Your task to perform on an android device: open app "ZOOM Cloud Meetings" (install if not already installed) Image 0: 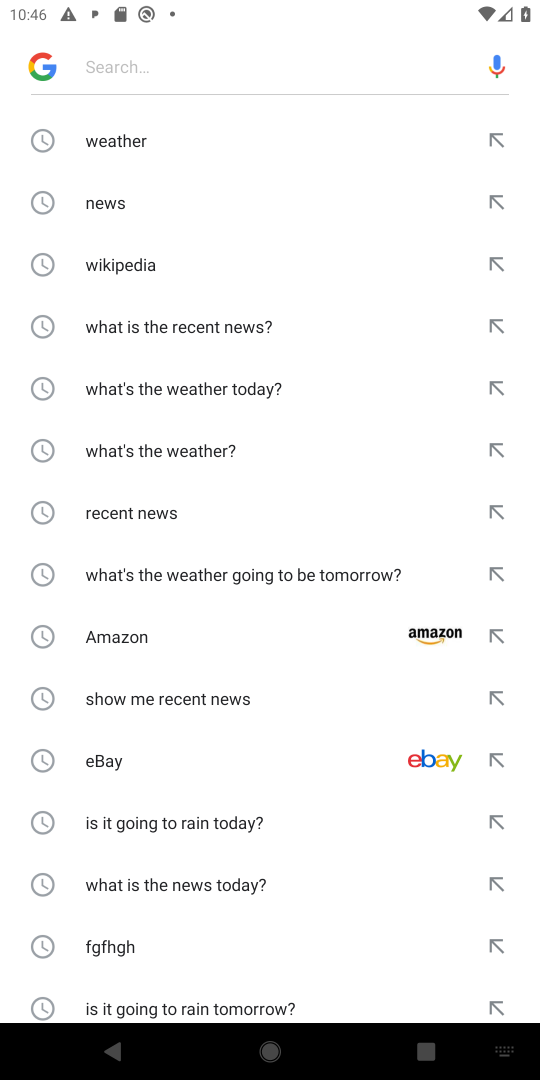
Step 0: click (184, 56)
Your task to perform on an android device: open app "ZOOM Cloud Meetings" (install if not already installed) Image 1: 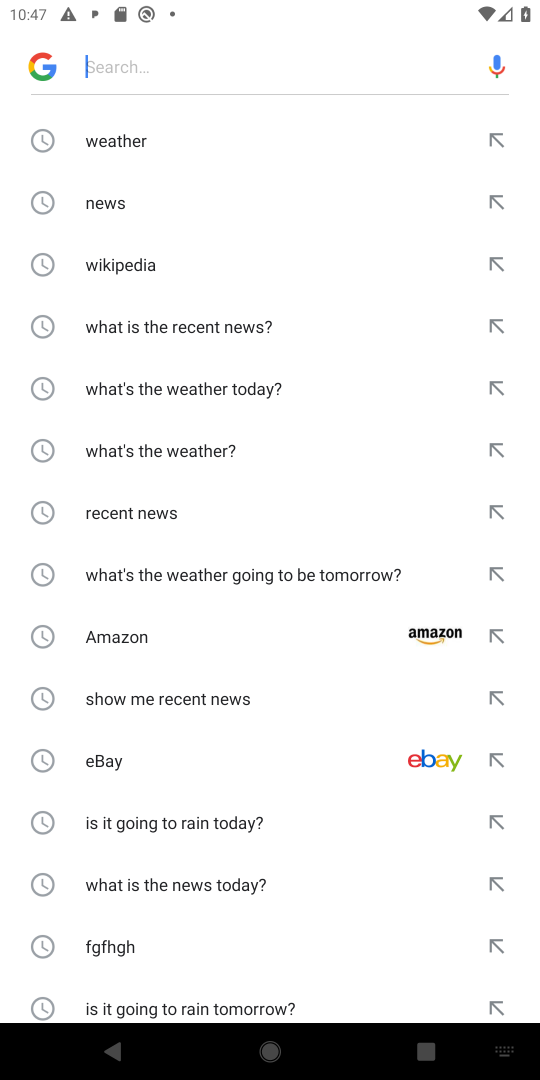
Step 1: press home button
Your task to perform on an android device: open app "ZOOM Cloud Meetings" (install if not already installed) Image 2: 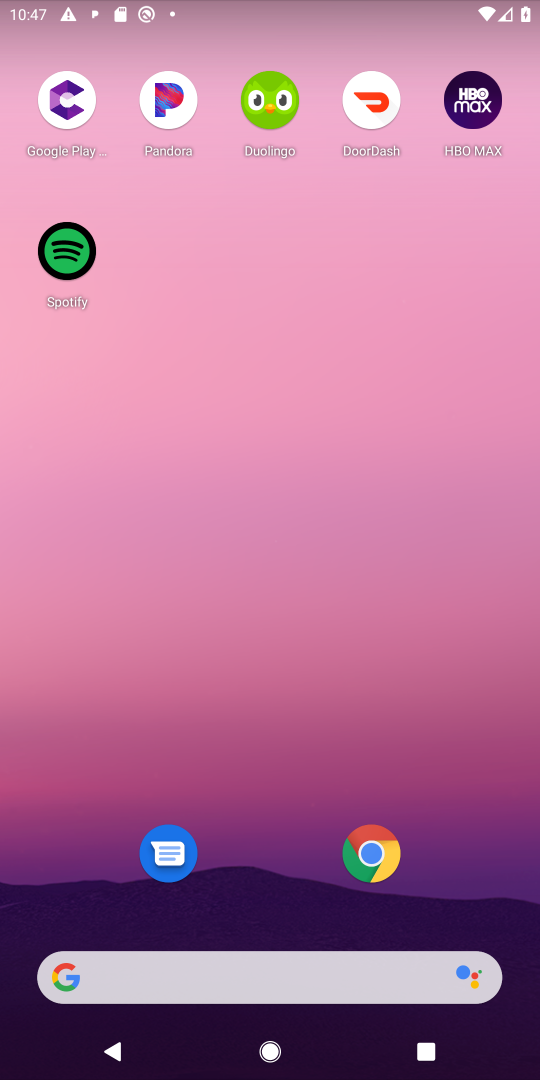
Step 2: drag from (339, 638) to (447, 77)
Your task to perform on an android device: open app "ZOOM Cloud Meetings" (install if not already installed) Image 3: 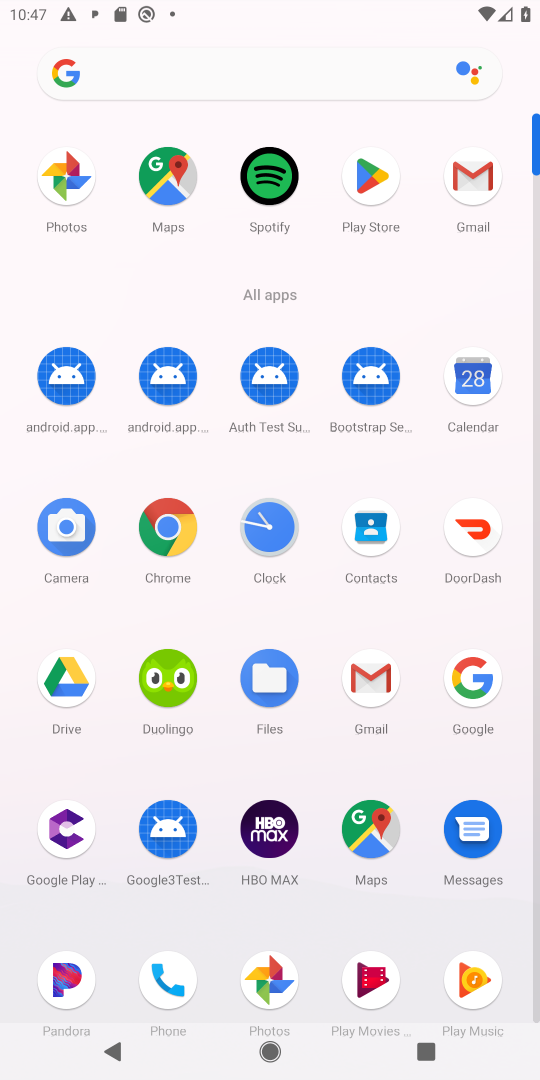
Step 3: click (363, 176)
Your task to perform on an android device: open app "ZOOM Cloud Meetings" (install if not already installed) Image 4: 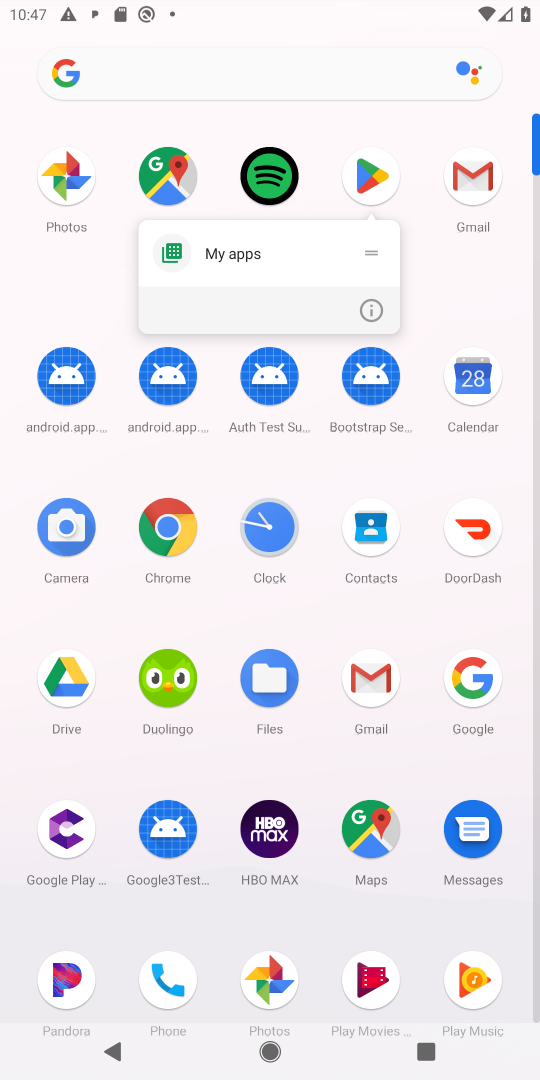
Step 4: click (363, 176)
Your task to perform on an android device: open app "ZOOM Cloud Meetings" (install if not already installed) Image 5: 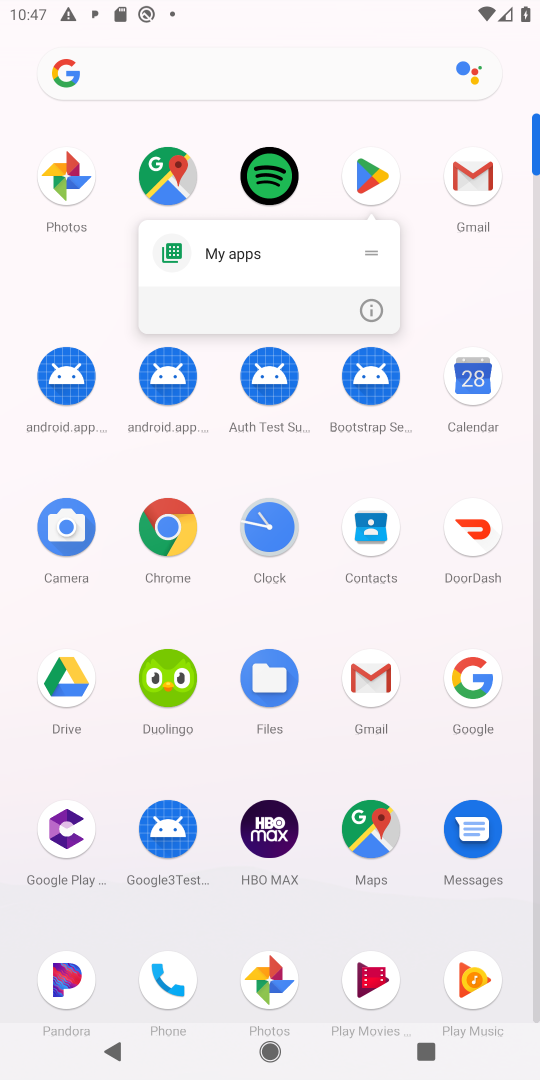
Step 5: click (363, 176)
Your task to perform on an android device: open app "ZOOM Cloud Meetings" (install if not already installed) Image 6: 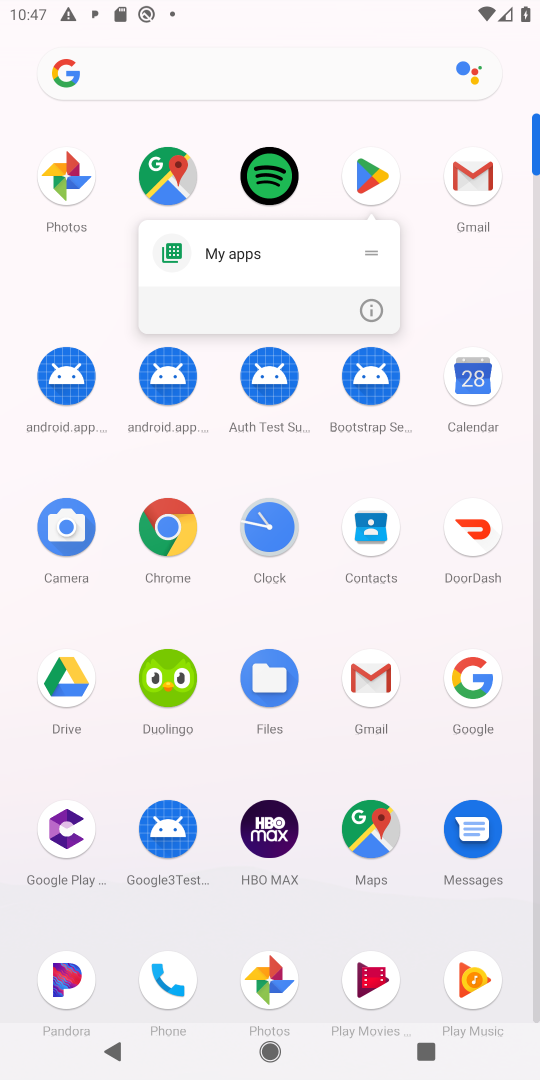
Step 6: click (363, 176)
Your task to perform on an android device: open app "ZOOM Cloud Meetings" (install if not already installed) Image 7: 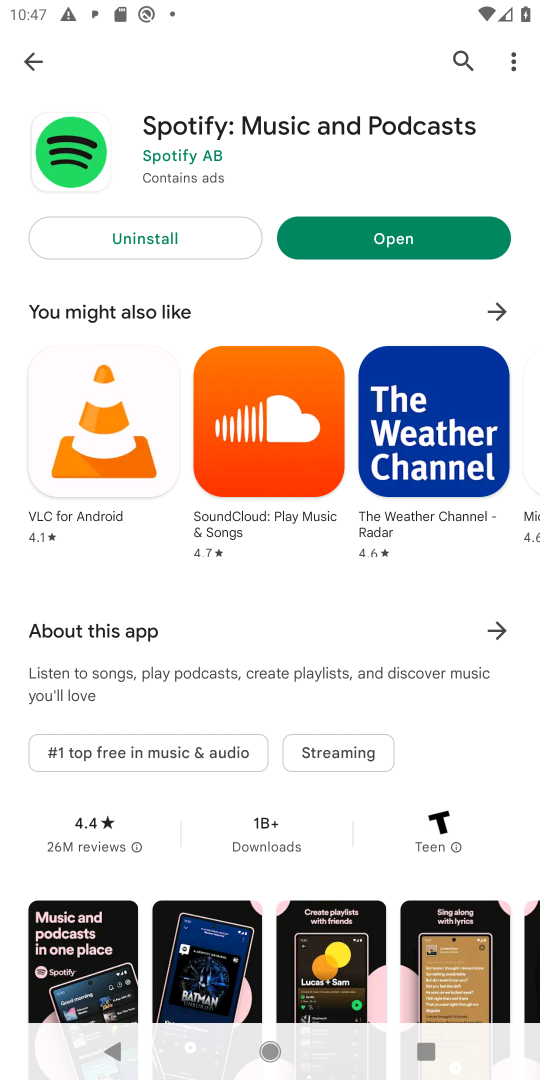
Step 7: click (471, 48)
Your task to perform on an android device: open app "ZOOM Cloud Meetings" (install if not already installed) Image 8: 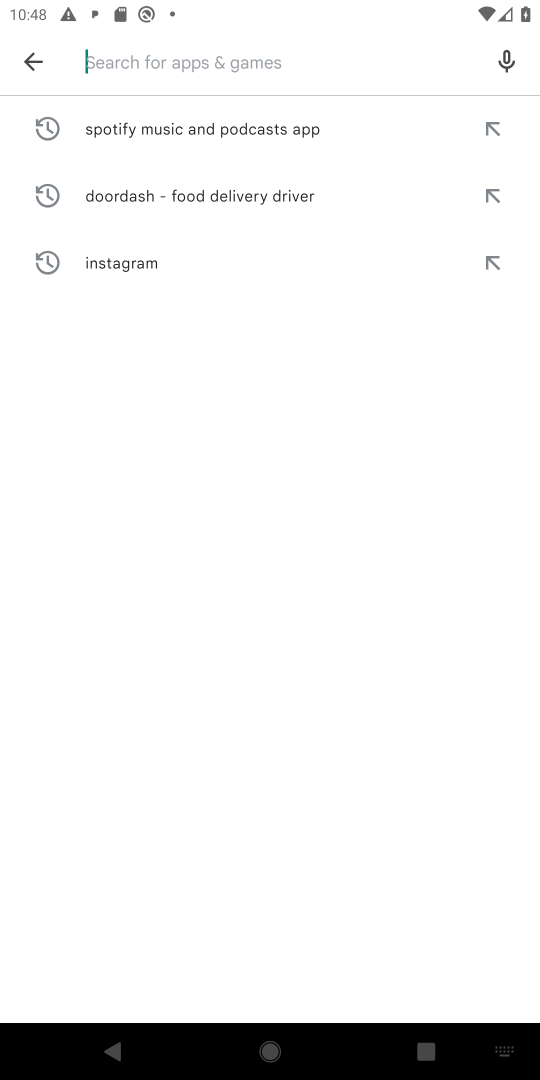
Step 8: type "ZOOM Cloud Meetings"
Your task to perform on an android device: open app "ZOOM Cloud Meetings" (install if not already installed) Image 9: 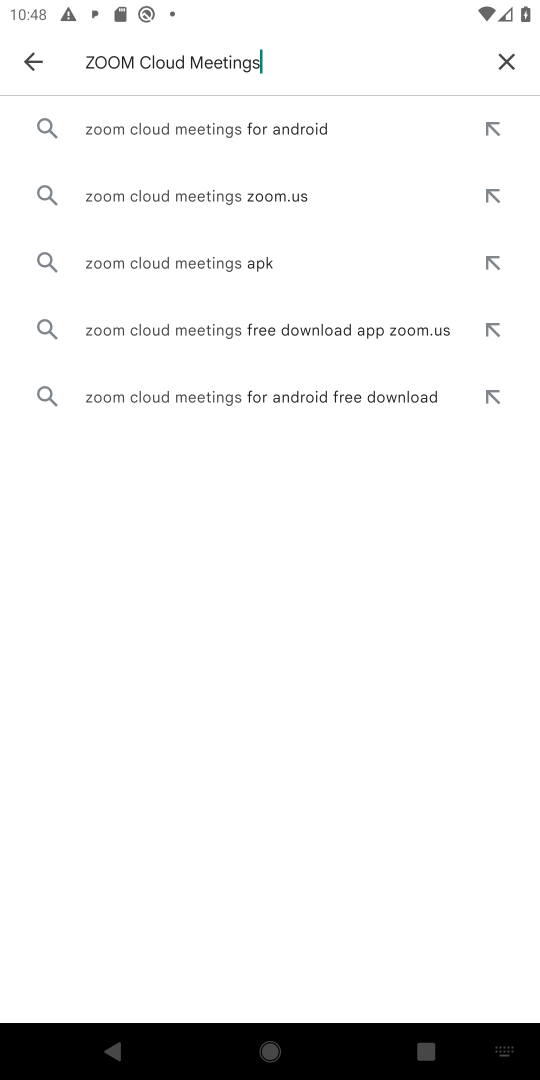
Step 9: press enter
Your task to perform on an android device: open app "ZOOM Cloud Meetings" (install if not already installed) Image 10: 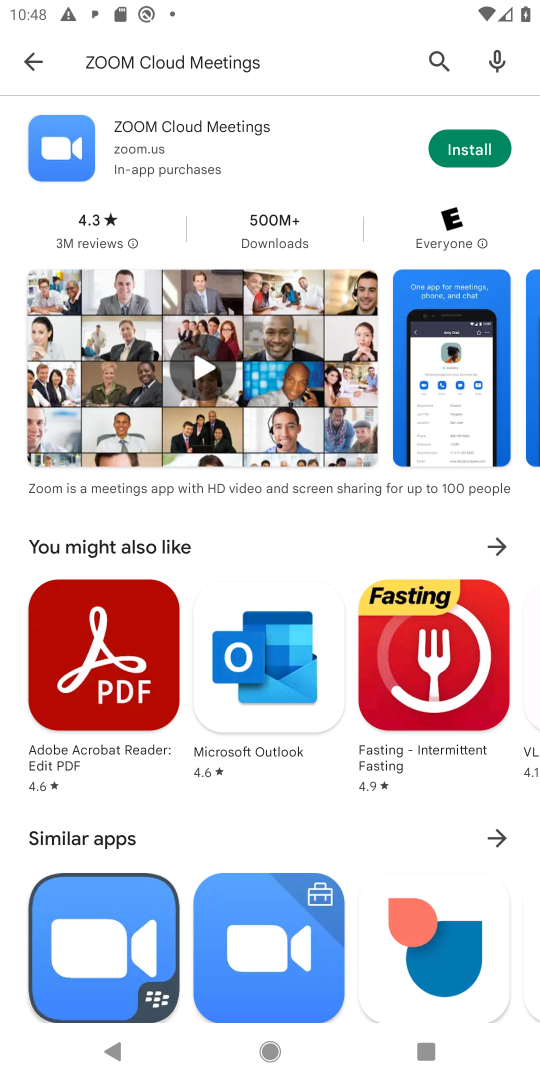
Step 10: click (489, 154)
Your task to perform on an android device: open app "ZOOM Cloud Meetings" (install if not already installed) Image 11: 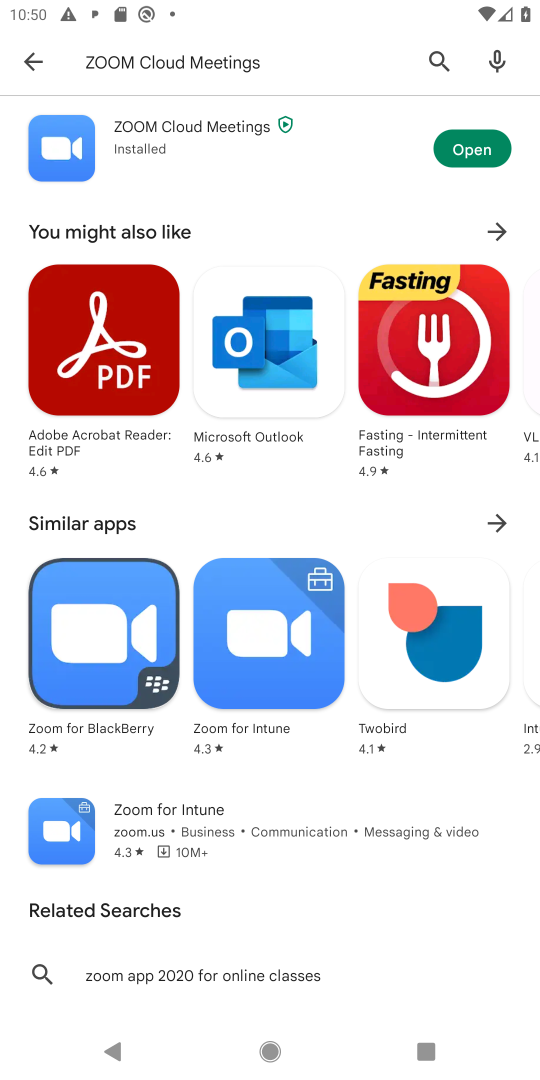
Step 11: click (464, 156)
Your task to perform on an android device: open app "ZOOM Cloud Meetings" (install if not already installed) Image 12: 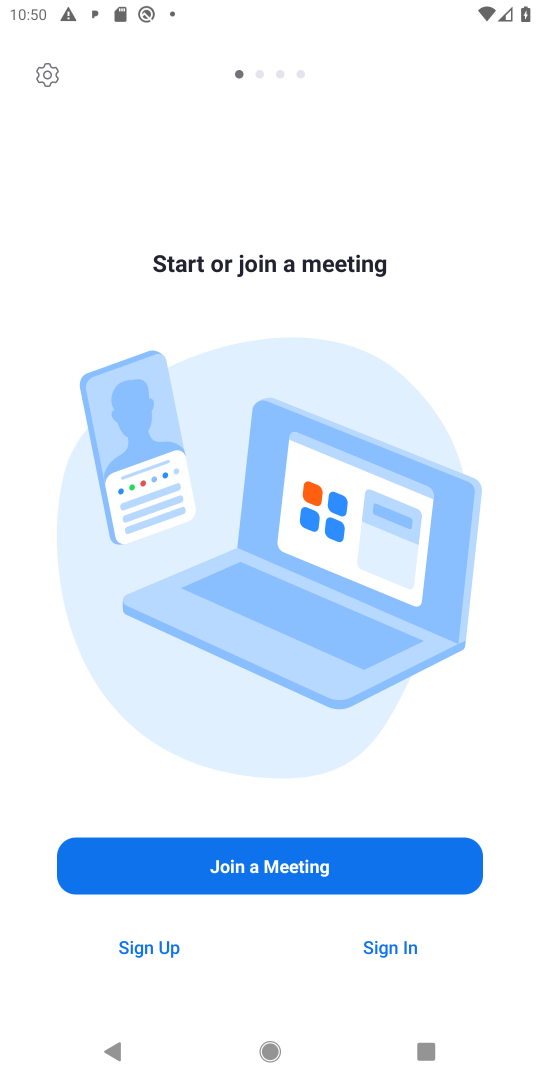
Step 12: click (94, 1063)
Your task to perform on an android device: open app "ZOOM Cloud Meetings" (install if not already installed) Image 13: 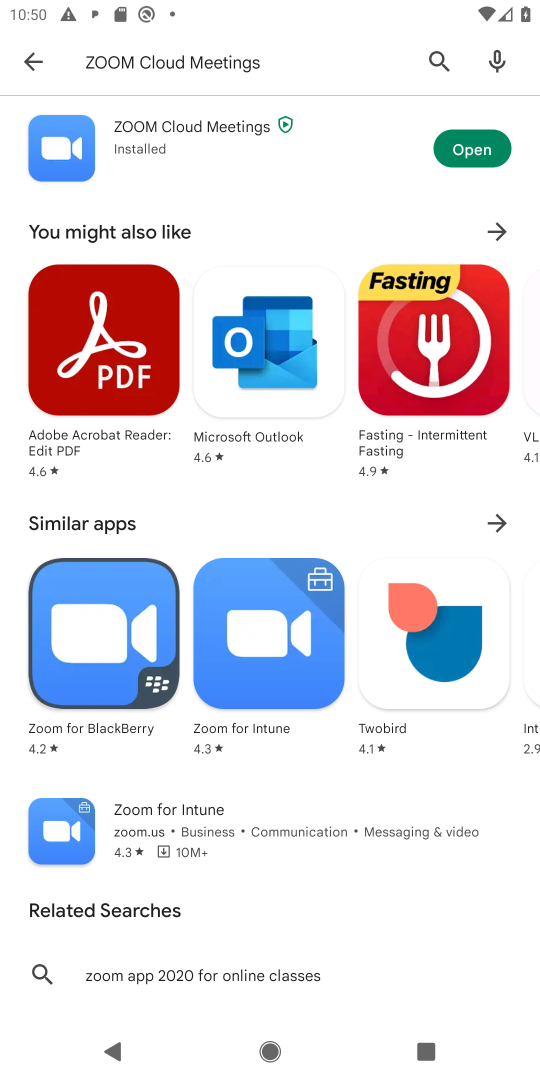
Step 13: task complete